Your task to perform on an android device: delete location history Image 0: 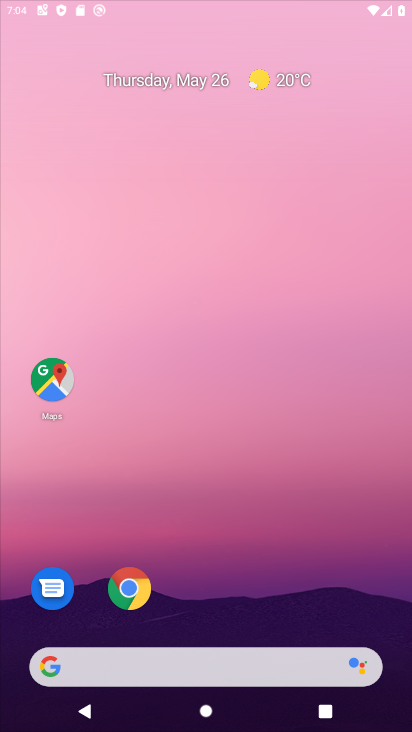
Step 0: drag from (369, 589) to (253, 15)
Your task to perform on an android device: delete location history Image 1: 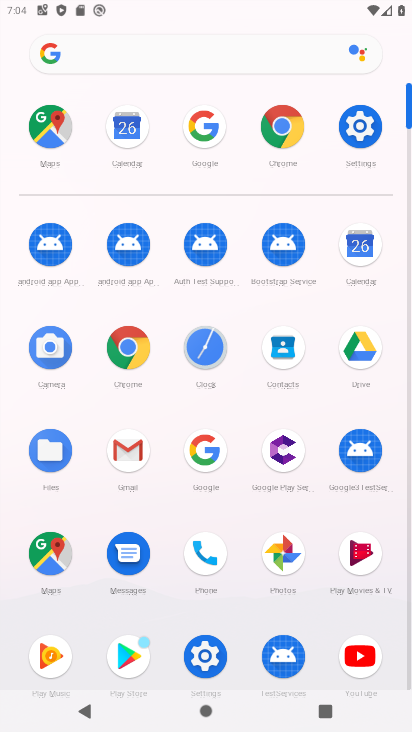
Step 1: click (363, 123)
Your task to perform on an android device: delete location history Image 2: 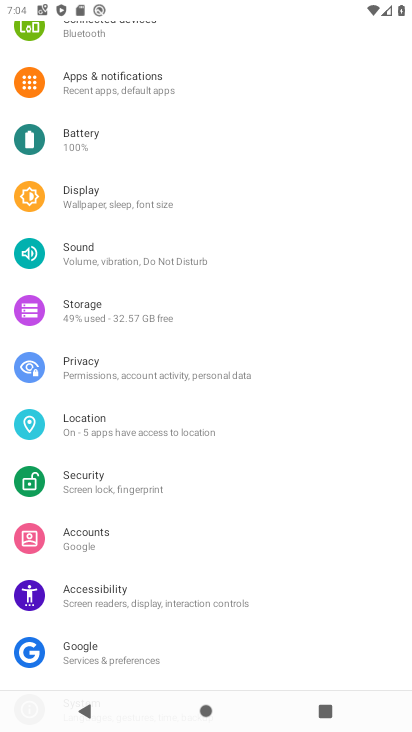
Step 2: drag from (132, 619) to (163, 248)
Your task to perform on an android device: delete location history Image 3: 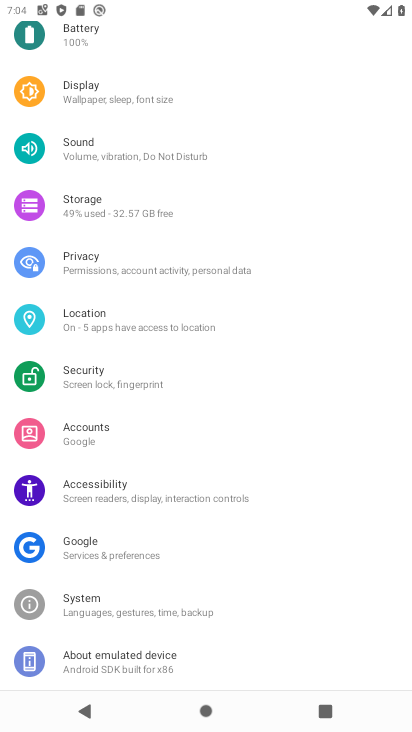
Step 3: click (101, 425)
Your task to perform on an android device: delete location history Image 4: 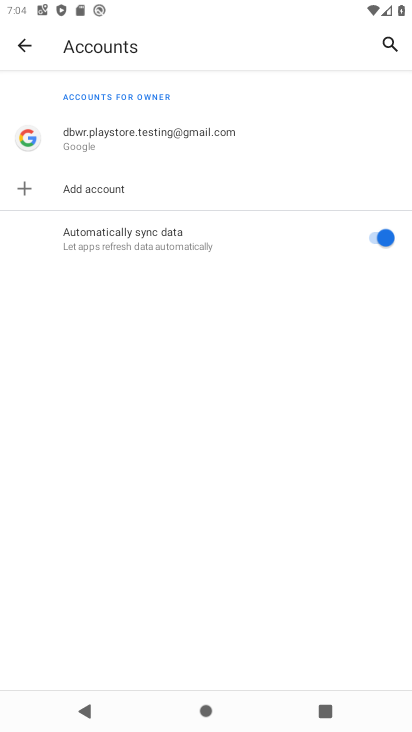
Step 4: press back button
Your task to perform on an android device: delete location history Image 5: 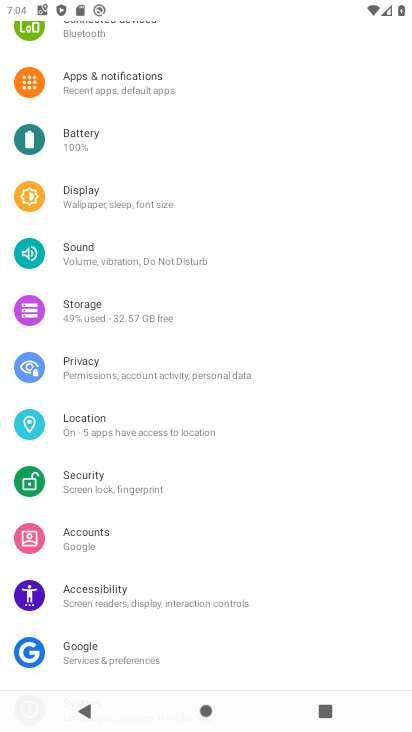
Step 5: click (94, 422)
Your task to perform on an android device: delete location history Image 6: 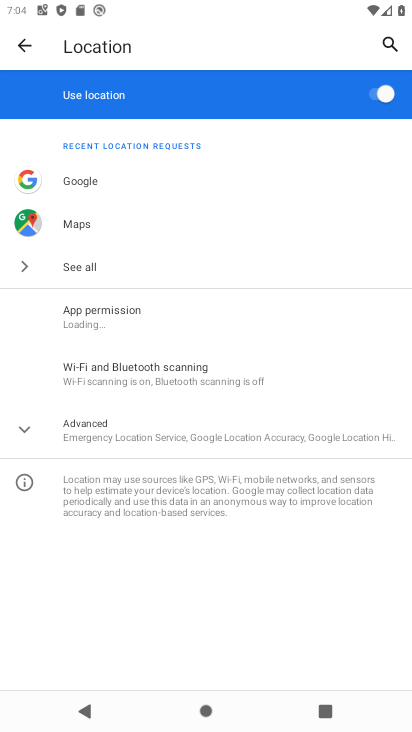
Step 6: click (94, 422)
Your task to perform on an android device: delete location history Image 7: 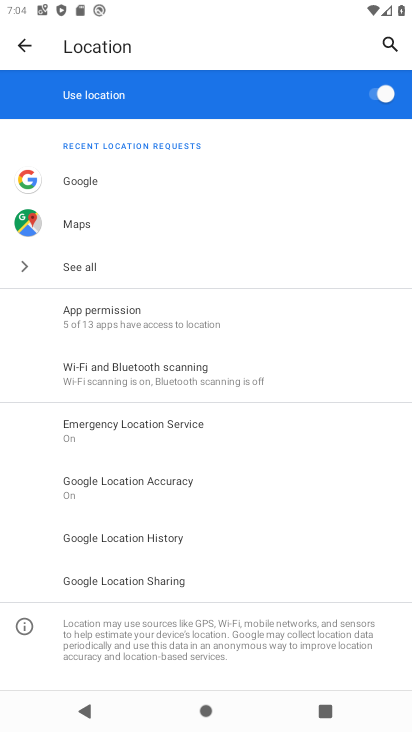
Step 7: click (121, 539)
Your task to perform on an android device: delete location history Image 8: 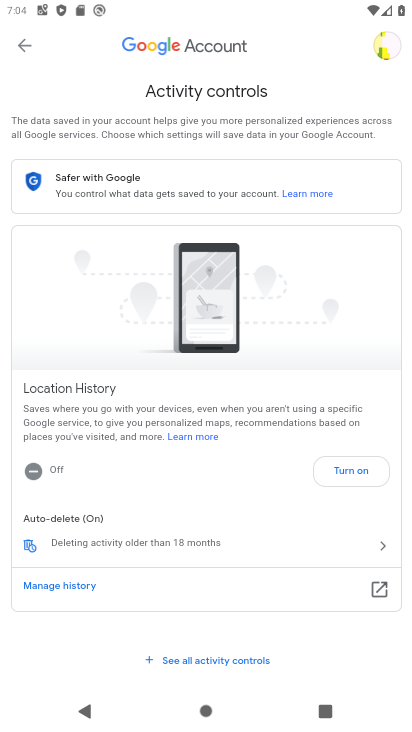
Step 8: click (153, 539)
Your task to perform on an android device: delete location history Image 9: 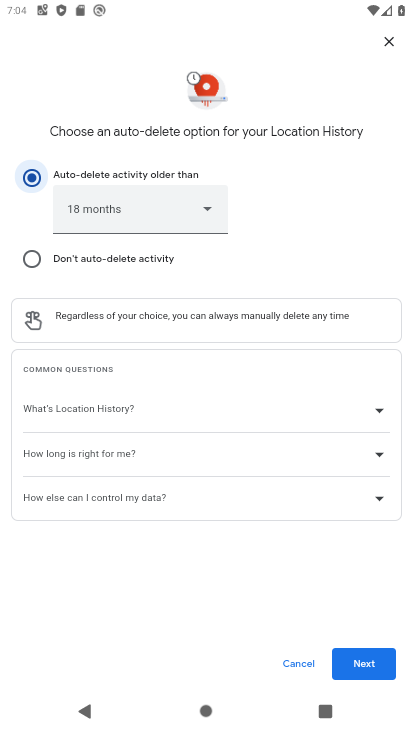
Step 9: click (372, 664)
Your task to perform on an android device: delete location history Image 10: 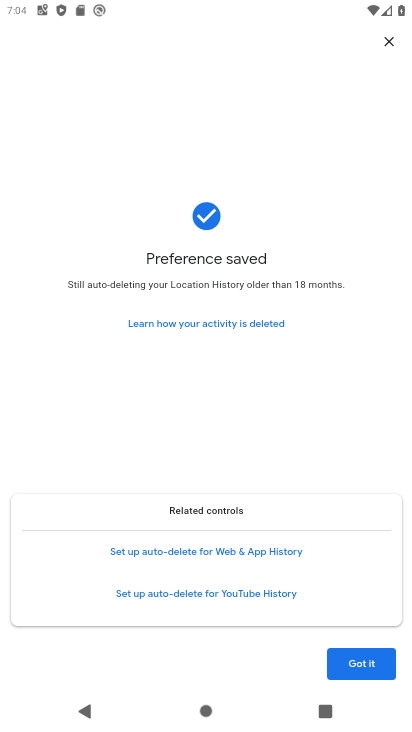
Step 10: click (368, 679)
Your task to perform on an android device: delete location history Image 11: 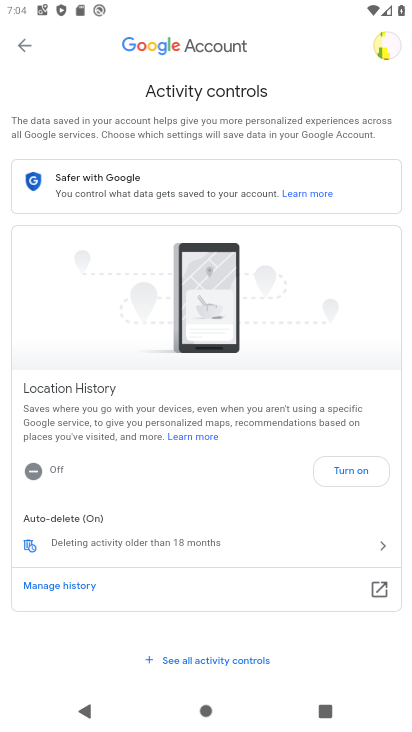
Step 11: task complete